Your task to perform on an android device: show emergency info Image 0: 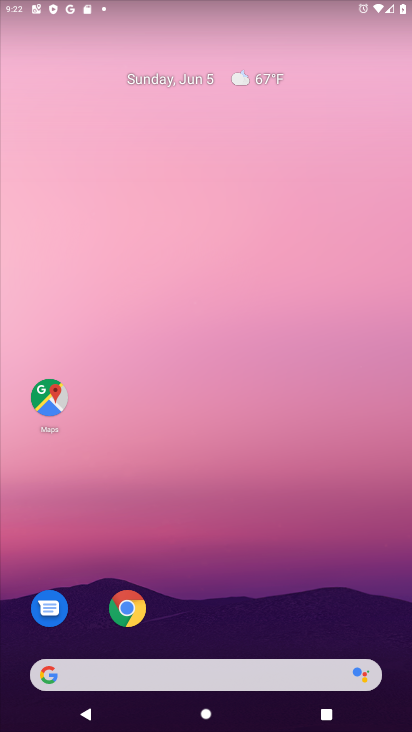
Step 0: drag from (14, 672) to (217, 180)
Your task to perform on an android device: show emergency info Image 1: 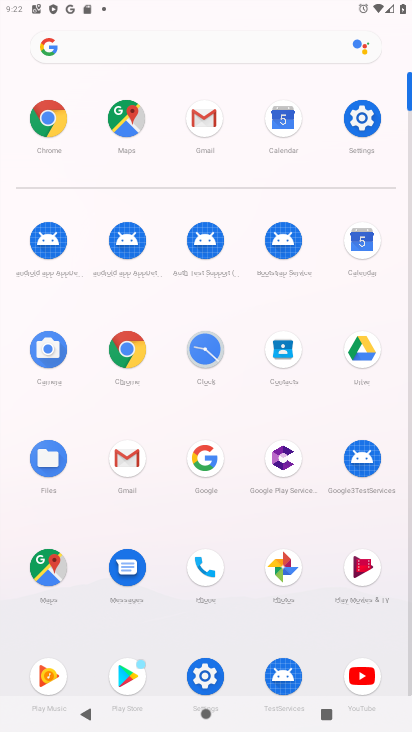
Step 1: click (355, 109)
Your task to perform on an android device: show emergency info Image 2: 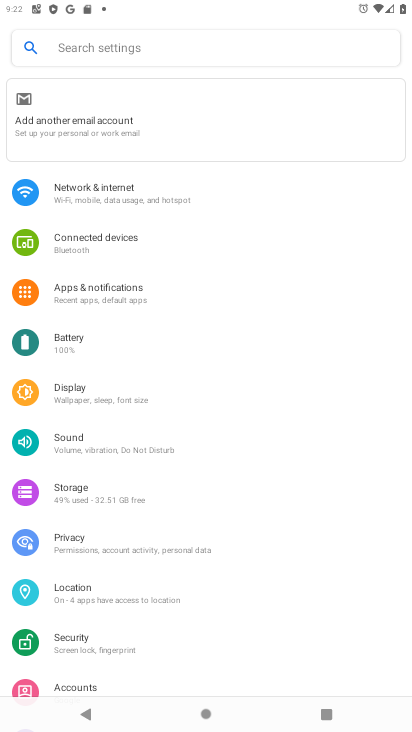
Step 2: drag from (6, 580) to (269, 136)
Your task to perform on an android device: show emergency info Image 3: 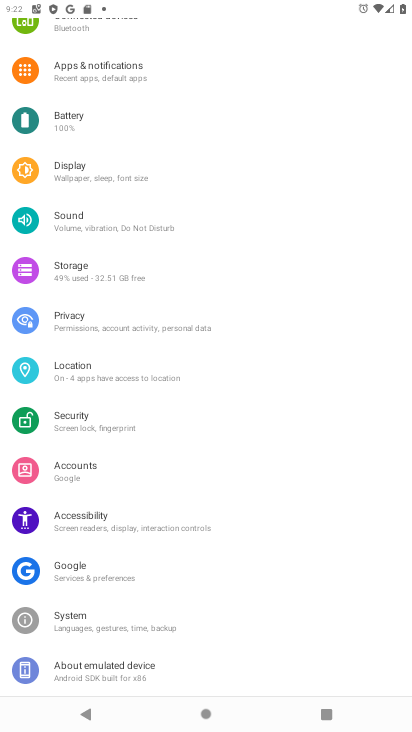
Step 3: drag from (42, 552) to (293, 27)
Your task to perform on an android device: show emergency info Image 4: 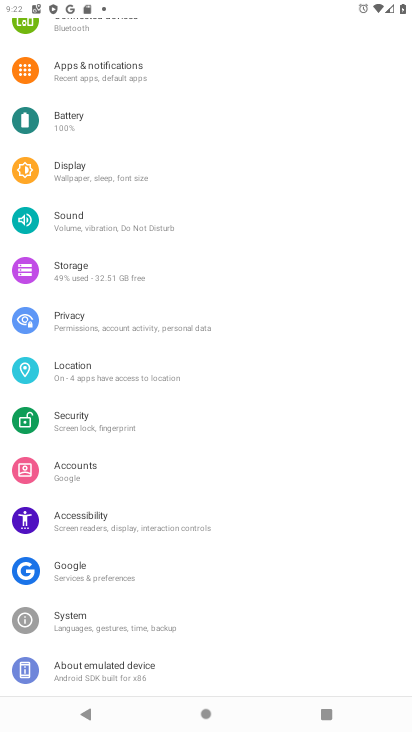
Step 4: click (79, 685)
Your task to perform on an android device: show emergency info Image 5: 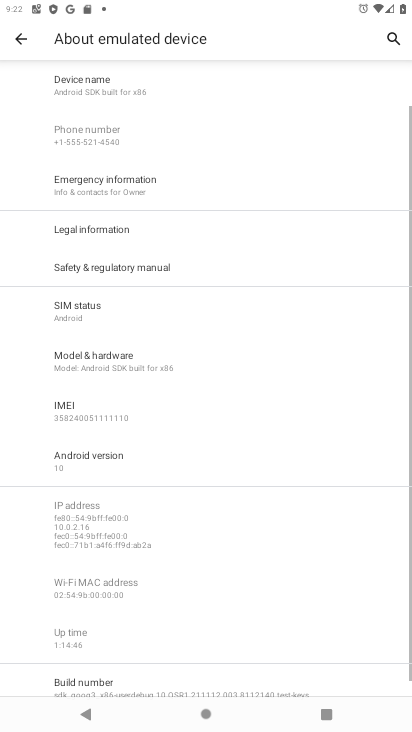
Step 5: click (127, 176)
Your task to perform on an android device: show emergency info Image 6: 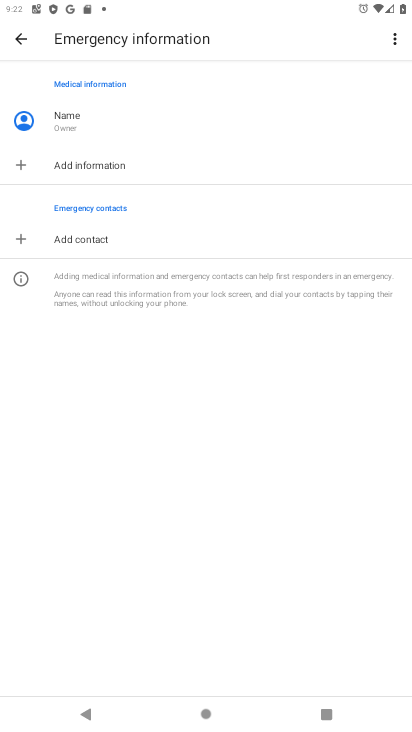
Step 6: task complete